Your task to perform on an android device: turn off smart reply in the gmail app Image 0: 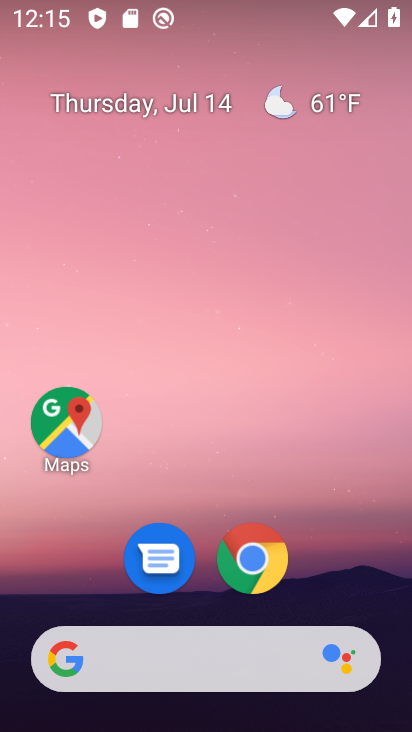
Step 0: drag from (178, 576) to (251, 59)
Your task to perform on an android device: turn off smart reply in the gmail app Image 1: 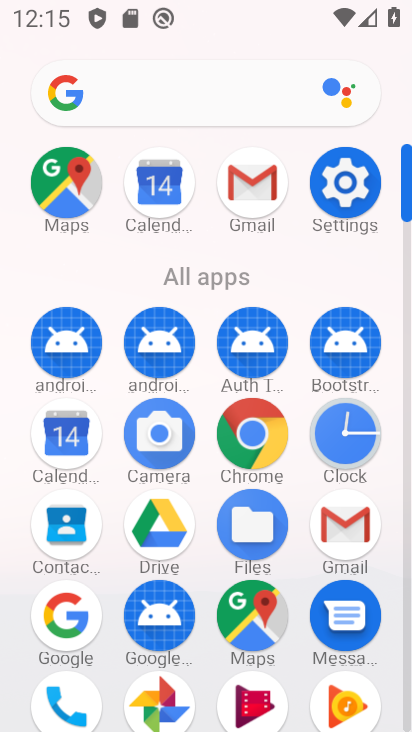
Step 1: click (246, 169)
Your task to perform on an android device: turn off smart reply in the gmail app Image 2: 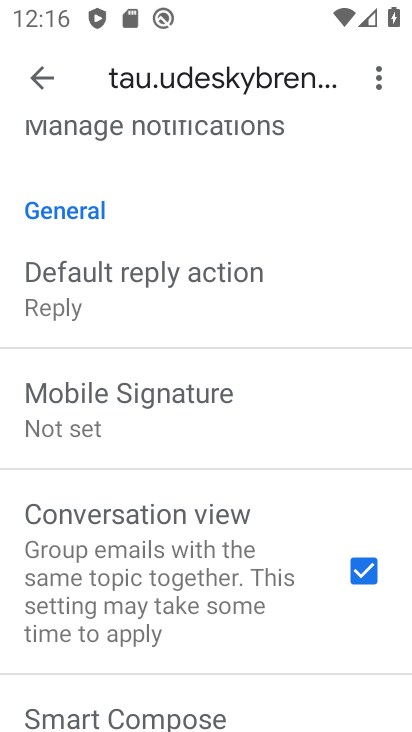
Step 2: drag from (200, 668) to (306, 109)
Your task to perform on an android device: turn off smart reply in the gmail app Image 3: 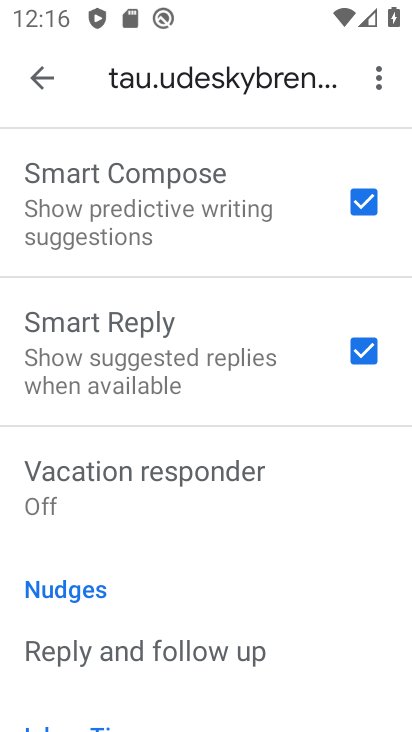
Step 3: click (370, 350)
Your task to perform on an android device: turn off smart reply in the gmail app Image 4: 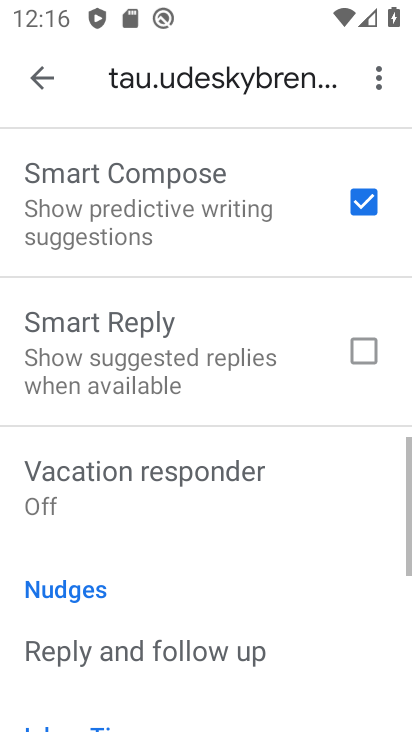
Step 4: task complete